Your task to perform on an android device: toggle location history Image 0: 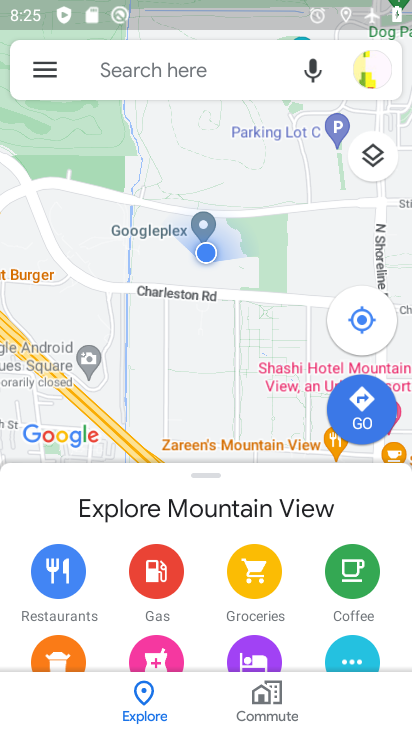
Step 0: press home button
Your task to perform on an android device: toggle location history Image 1: 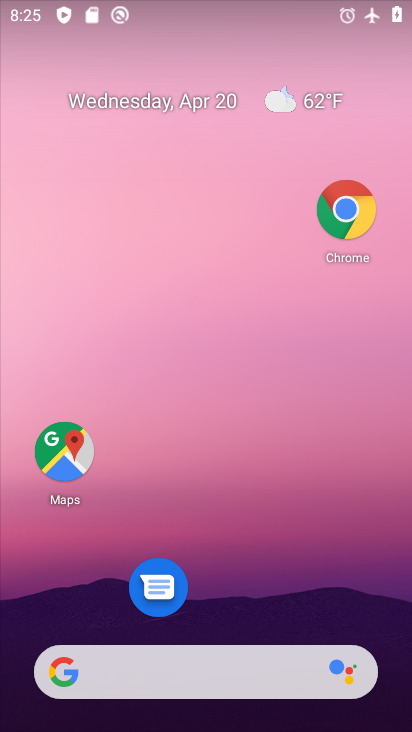
Step 1: drag from (261, 619) to (239, 149)
Your task to perform on an android device: toggle location history Image 2: 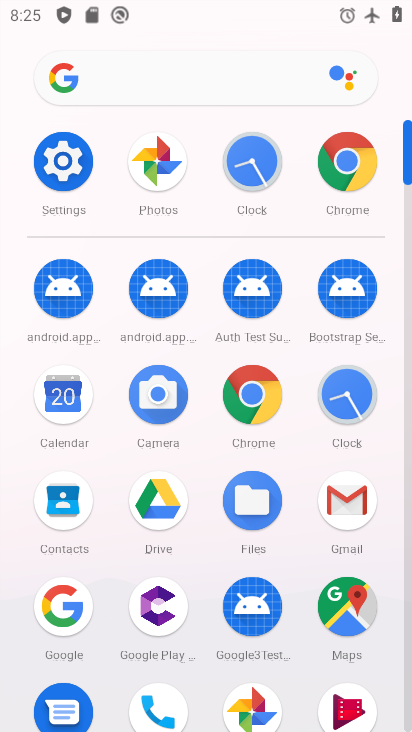
Step 2: click (55, 161)
Your task to perform on an android device: toggle location history Image 3: 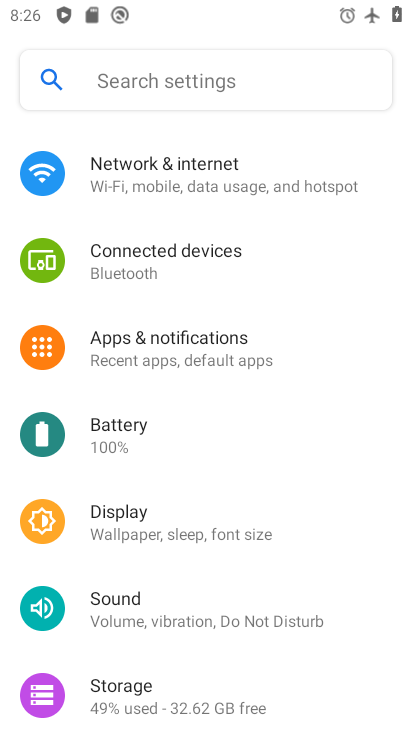
Step 3: drag from (126, 617) to (161, 164)
Your task to perform on an android device: toggle location history Image 4: 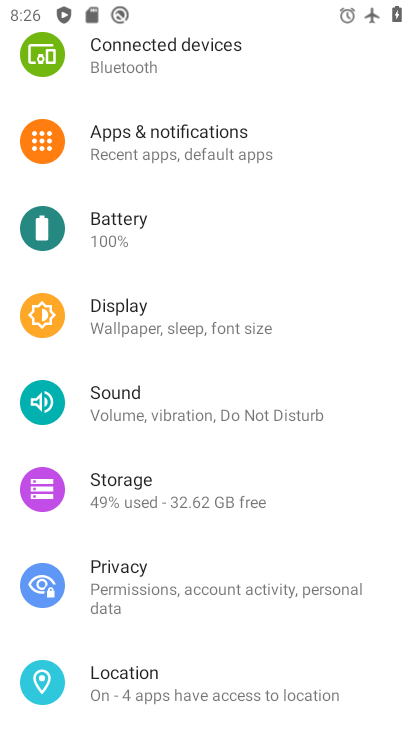
Step 4: click (144, 688)
Your task to perform on an android device: toggle location history Image 5: 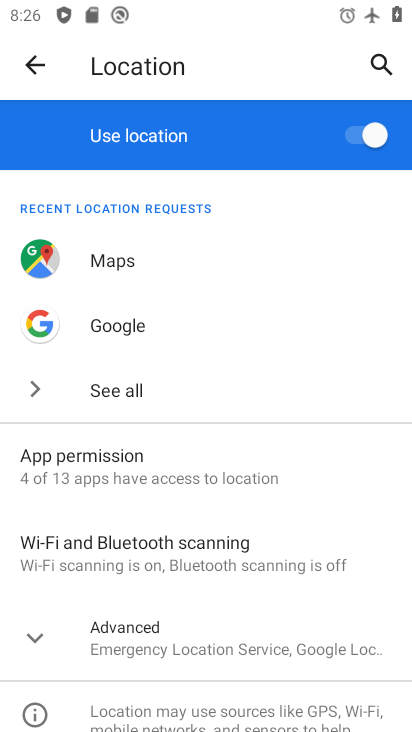
Step 5: drag from (114, 706) to (147, 313)
Your task to perform on an android device: toggle location history Image 6: 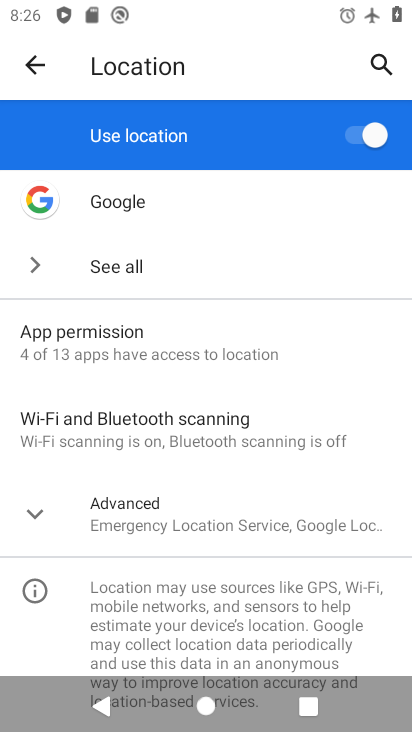
Step 6: click (164, 522)
Your task to perform on an android device: toggle location history Image 7: 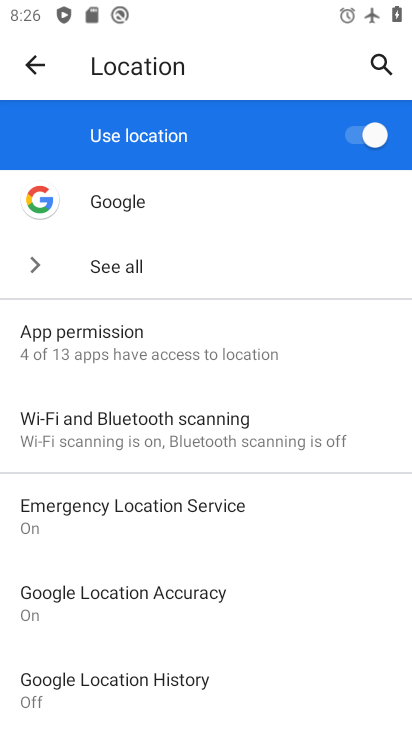
Step 7: click (132, 686)
Your task to perform on an android device: toggle location history Image 8: 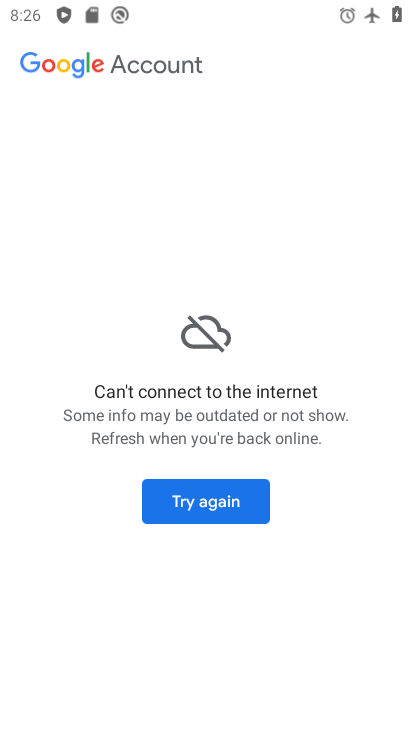
Step 8: drag from (256, 11) to (201, 555)
Your task to perform on an android device: toggle location history Image 9: 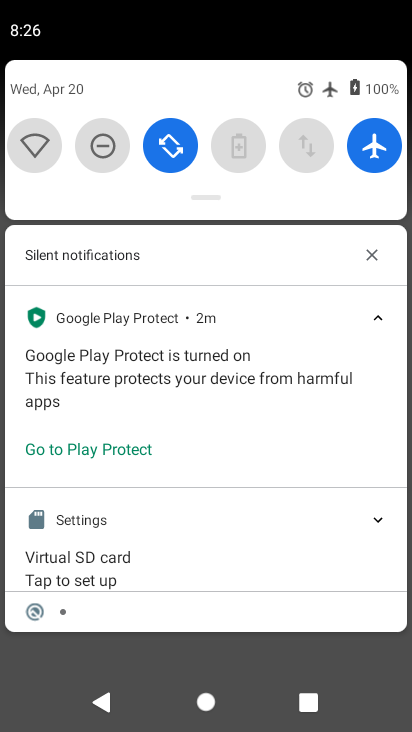
Step 9: click (362, 176)
Your task to perform on an android device: toggle location history Image 10: 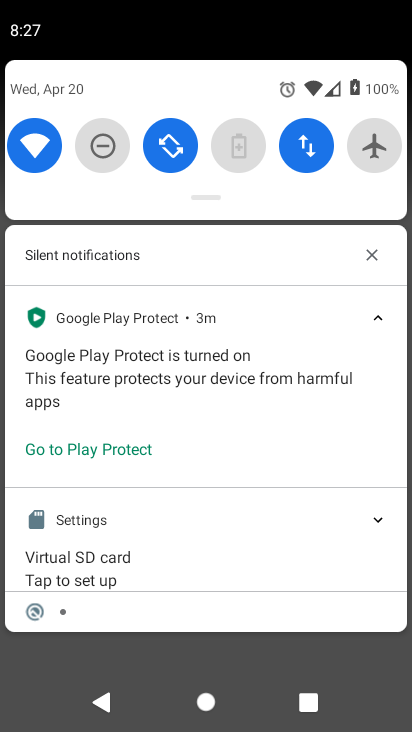
Step 10: task complete